Your task to perform on an android device: change alarm snooze length Image 0: 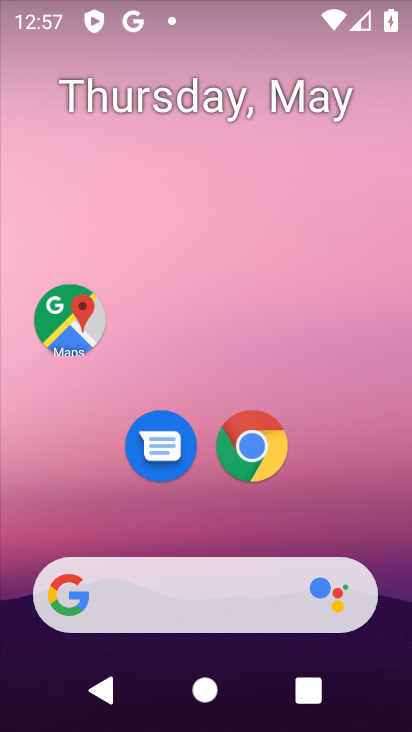
Step 0: drag from (193, 513) to (237, 88)
Your task to perform on an android device: change alarm snooze length Image 1: 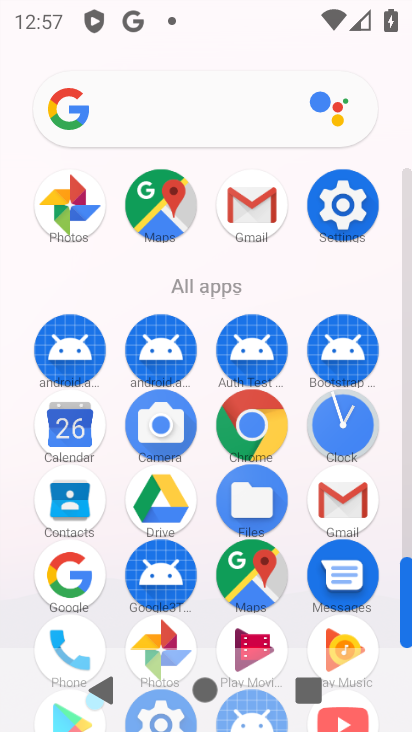
Step 1: click (345, 442)
Your task to perform on an android device: change alarm snooze length Image 2: 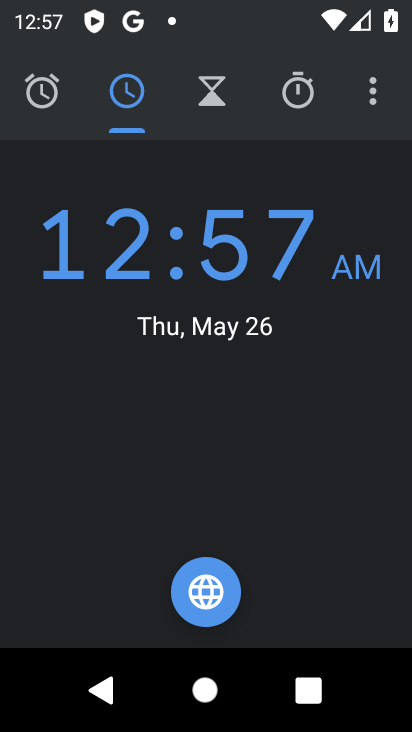
Step 2: click (368, 110)
Your task to perform on an android device: change alarm snooze length Image 3: 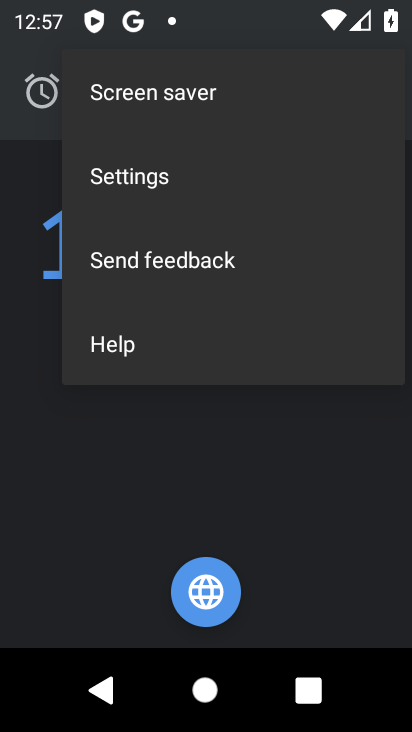
Step 3: click (180, 189)
Your task to perform on an android device: change alarm snooze length Image 4: 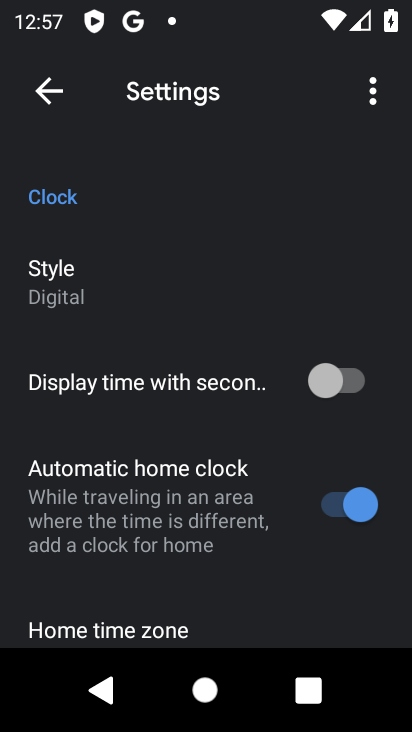
Step 4: drag from (143, 524) to (171, 298)
Your task to perform on an android device: change alarm snooze length Image 5: 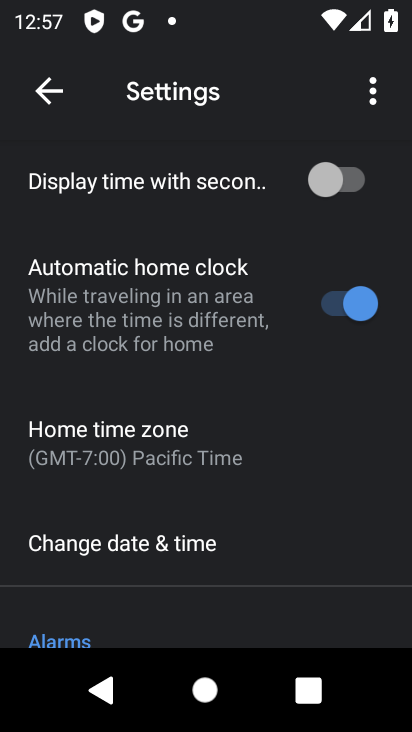
Step 5: drag from (117, 532) to (178, 292)
Your task to perform on an android device: change alarm snooze length Image 6: 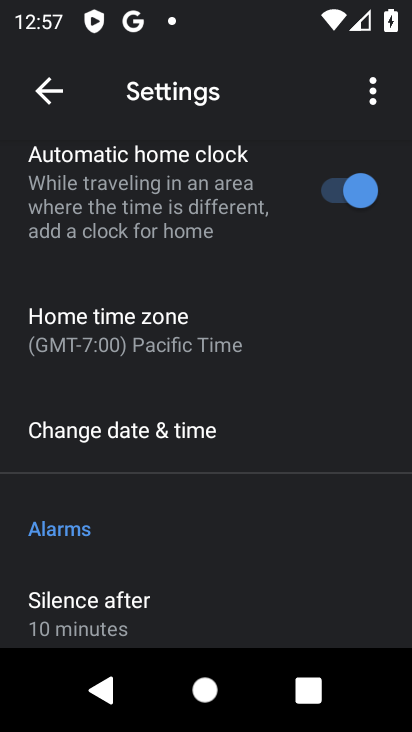
Step 6: drag from (127, 542) to (154, 381)
Your task to perform on an android device: change alarm snooze length Image 7: 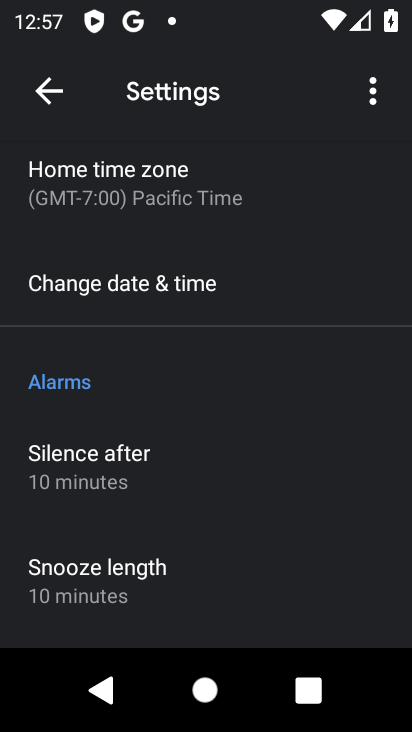
Step 7: drag from (121, 565) to (151, 396)
Your task to perform on an android device: change alarm snooze length Image 8: 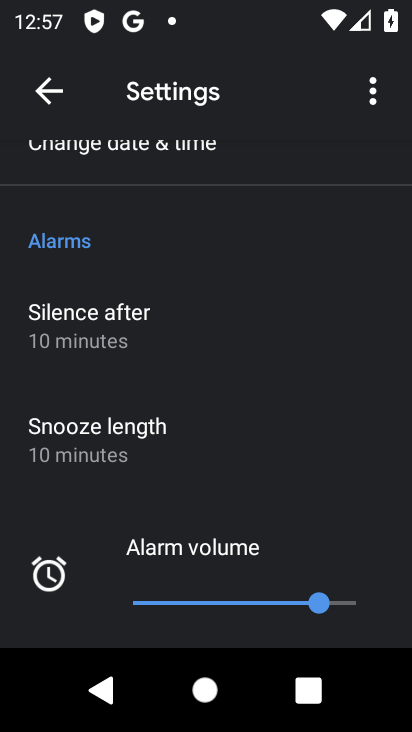
Step 8: click (105, 453)
Your task to perform on an android device: change alarm snooze length Image 9: 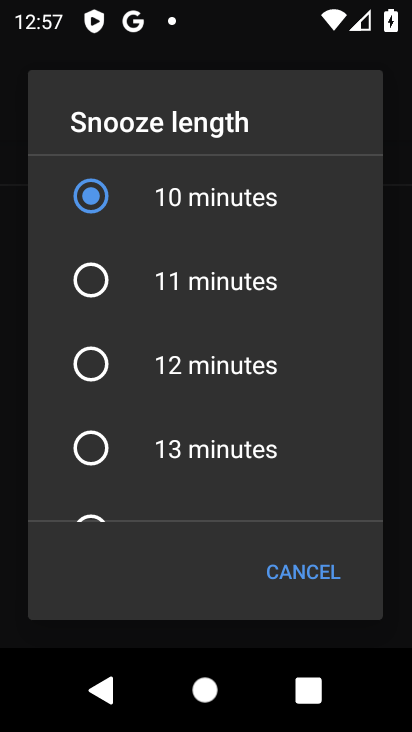
Step 9: click (147, 363)
Your task to perform on an android device: change alarm snooze length Image 10: 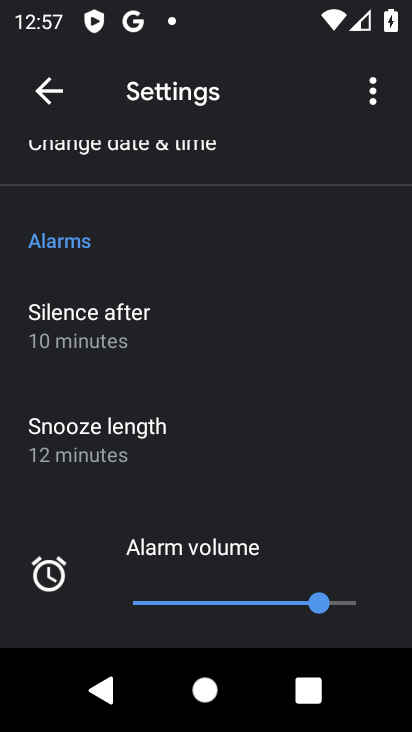
Step 10: task complete